Your task to perform on an android device: toggle notification dots Image 0: 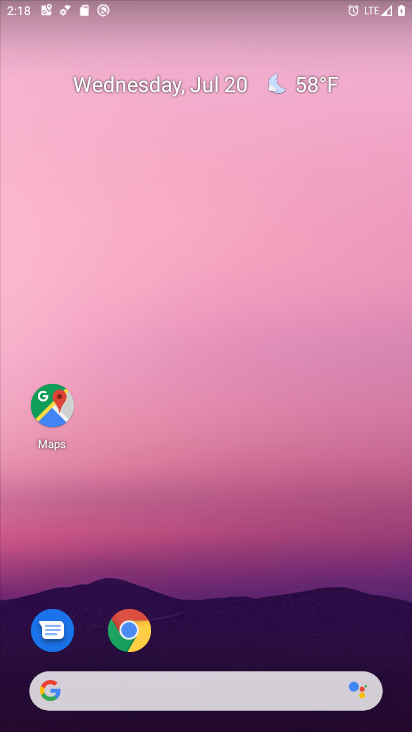
Step 0: drag from (242, 578) to (280, 214)
Your task to perform on an android device: toggle notification dots Image 1: 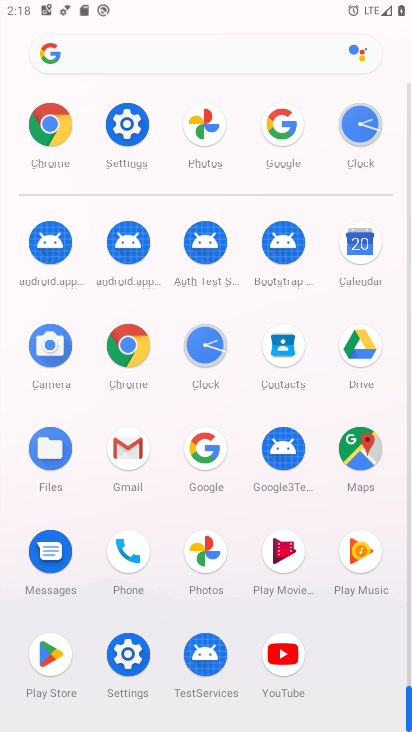
Step 1: click (132, 139)
Your task to perform on an android device: toggle notification dots Image 2: 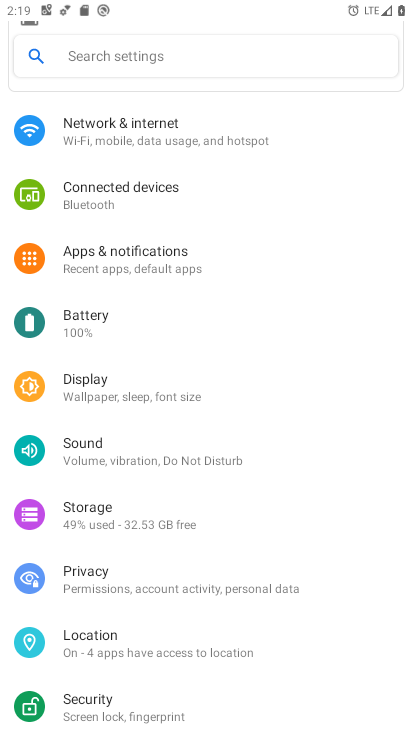
Step 2: click (174, 262)
Your task to perform on an android device: toggle notification dots Image 3: 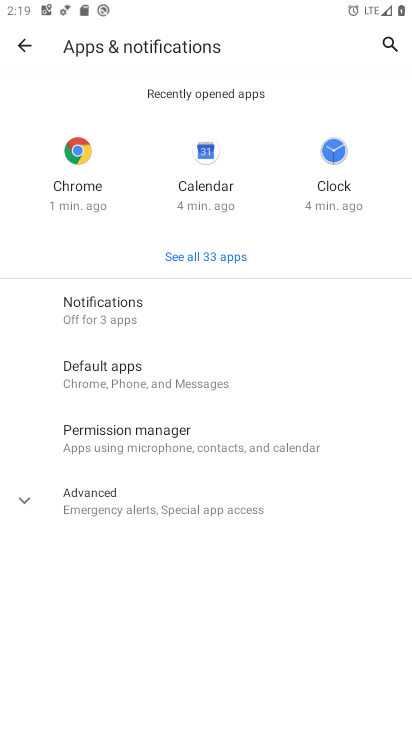
Step 3: click (157, 311)
Your task to perform on an android device: toggle notification dots Image 4: 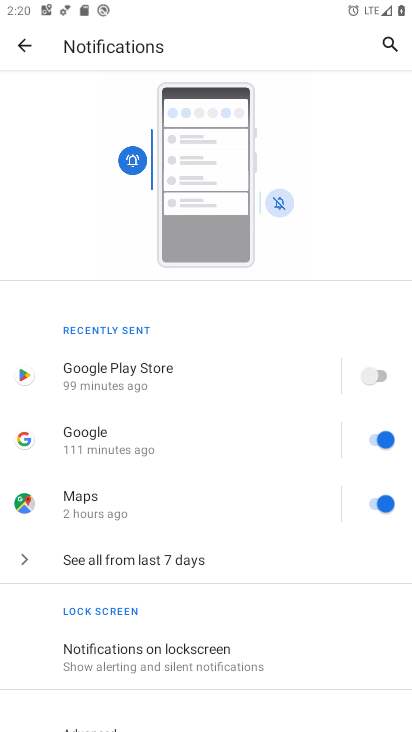
Step 4: drag from (215, 555) to (290, 60)
Your task to perform on an android device: toggle notification dots Image 5: 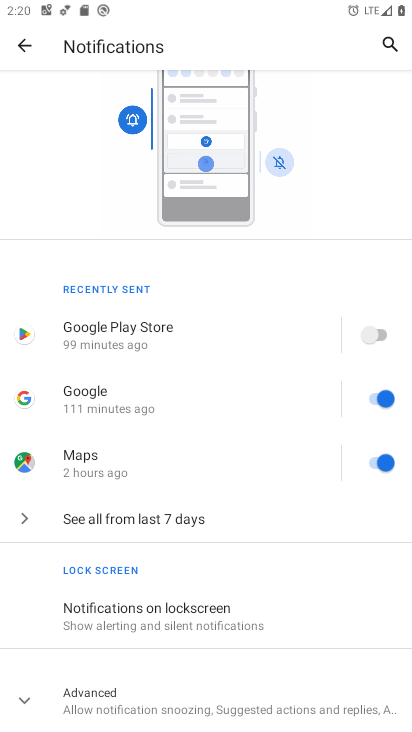
Step 5: drag from (126, 608) to (198, 308)
Your task to perform on an android device: toggle notification dots Image 6: 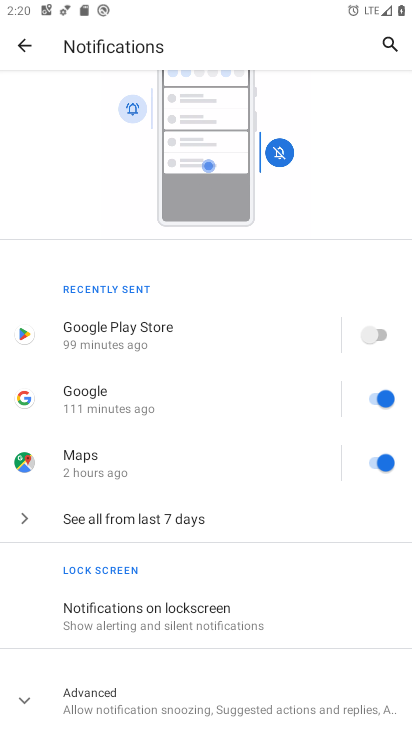
Step 6: drag from (213, 480) to (320, 27)
Your task to perform on an android device: toggle notification dots Image 7: 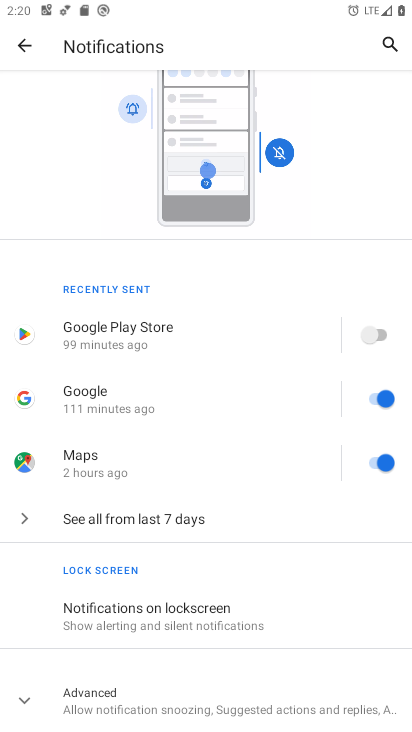
Step 7: click (159, 705)
Your task to perform on an android device: toggle notification dots Image 8: 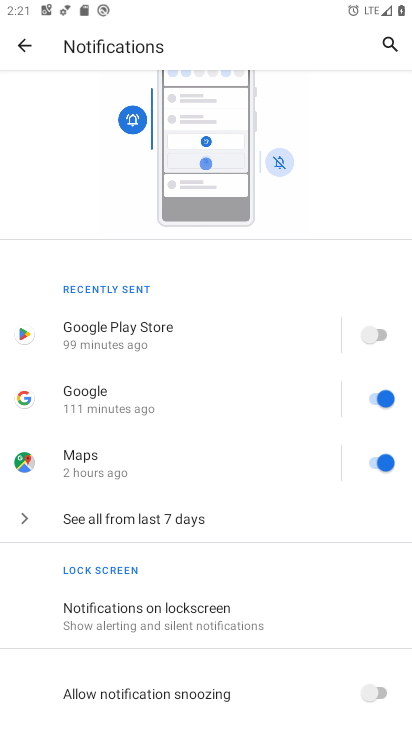
Step 8: drag from (193, 575) to (263, 90)
Your task to perform on an android device: toggle notification dots Image 9: 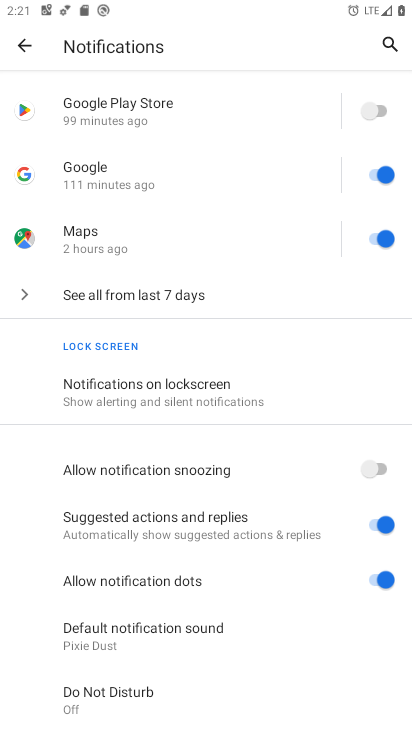
Step 9: click (369, 579)
Your task to perform on an android device: toggle notification dots Image 10: 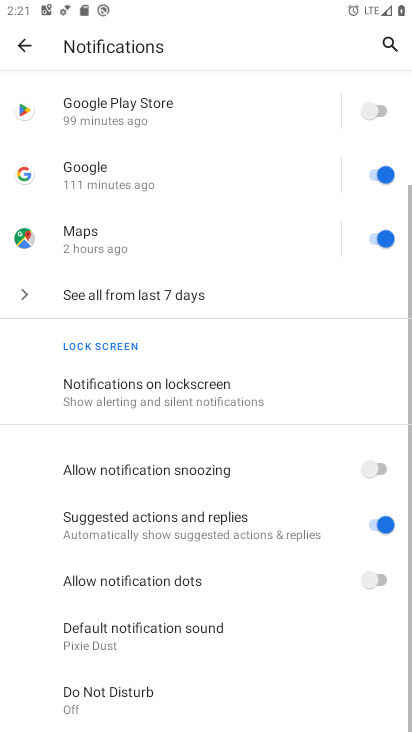
Step 10: task complete